Your task to perform on an android device: turn off location history Image 0: 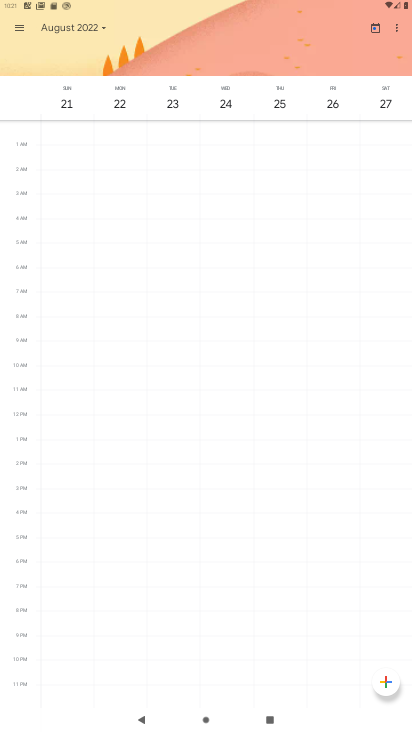
Step 0: press home button
Your task to perform on an android device: turn off location history Image 1: 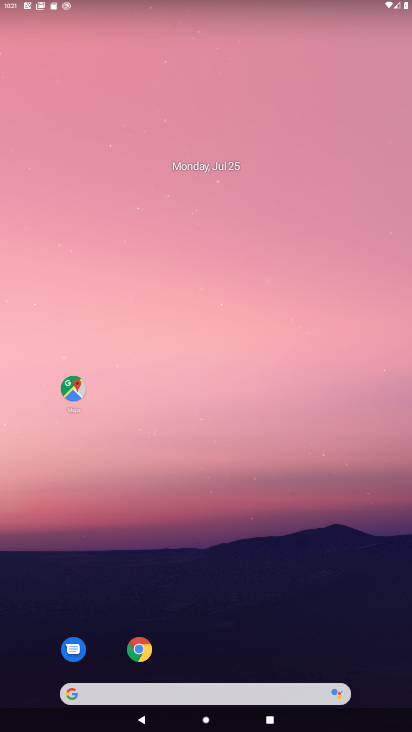
Step 1: click (72, 389)
Your task to perform on an android device: turn off location history Image 2: 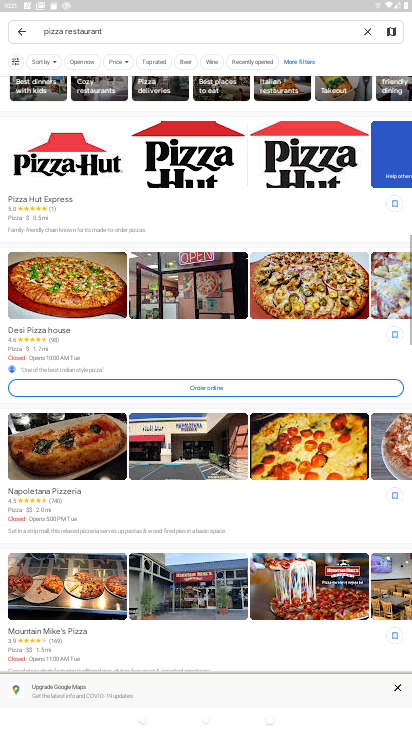
Step 2: click (366, 31)
Your task to perform on an android device: turn off location history Image 3: 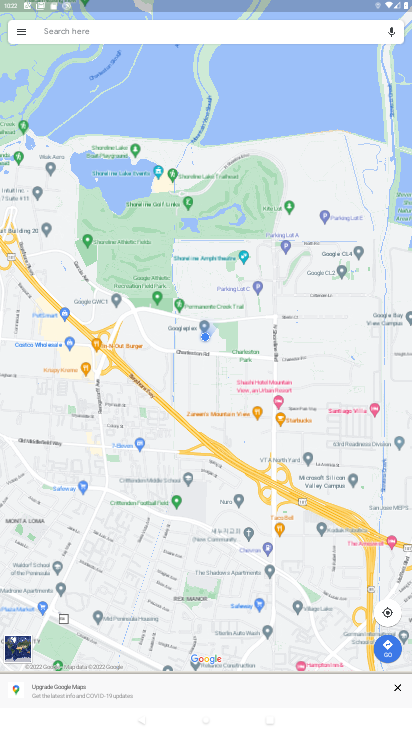
Step 3: click (21, 34)
Your task to perform on an android device: turn off location history Image 4: 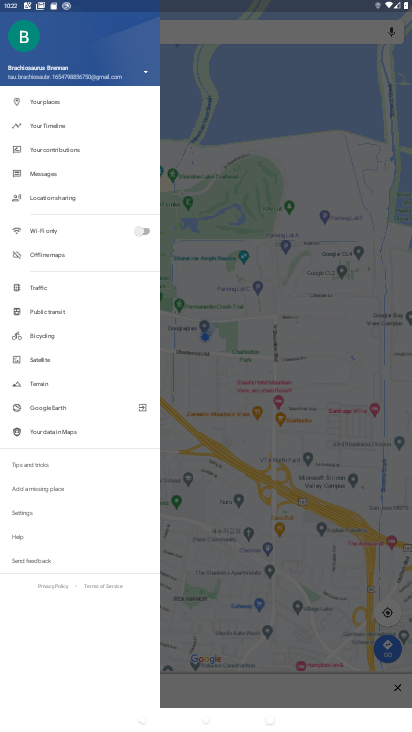
Step 4: click (21, 508)
Your task to perform on an android device: turn off location history Image 5: 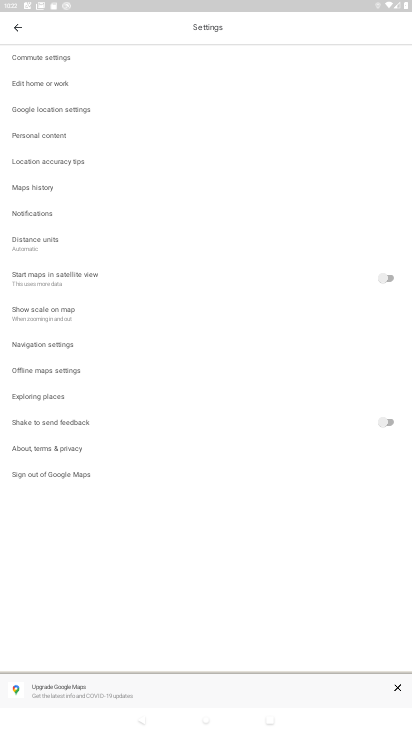
Step 5: click (44, 138)
Your task to perform on an android device: turn off location history Image 6: 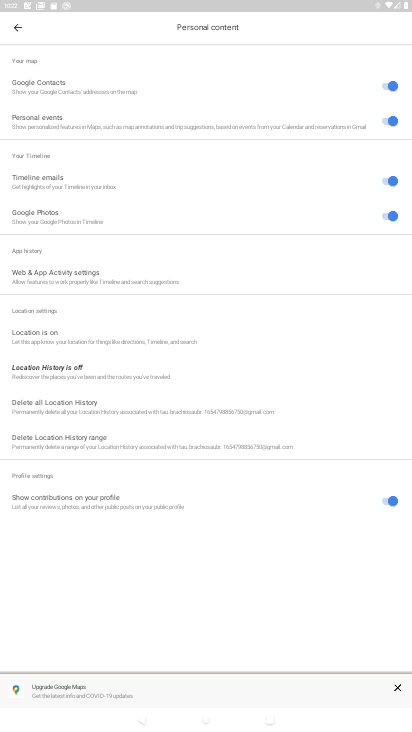
Step 6: task complete